Your task to perform on an android device: see tabs open on other devices in the chrome app Image 0: 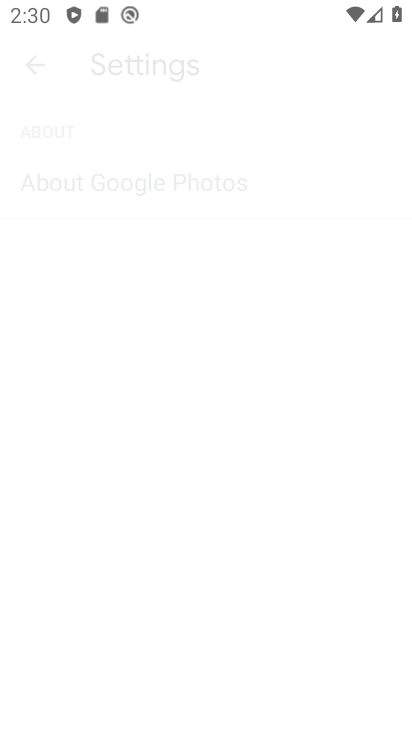
Step 0: drag from (274, 541) to (269, 331)
Your task to perform on an android device: see tabs open on other devices in the chrome app Image 1: 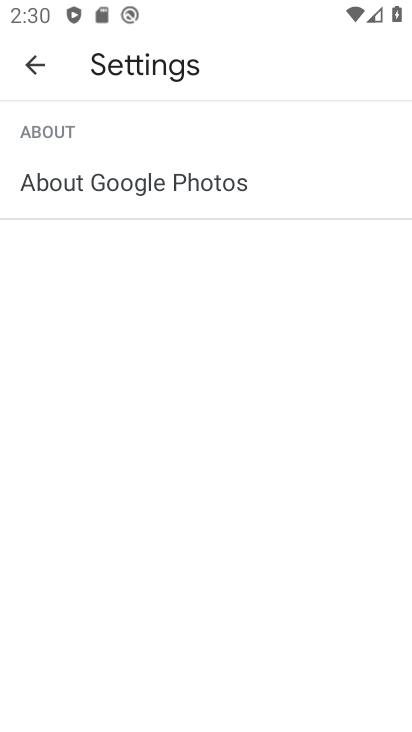
Step 1: press home button
Your task to perform on an android device: see tabs open on other devices in the chrome app Image 2: 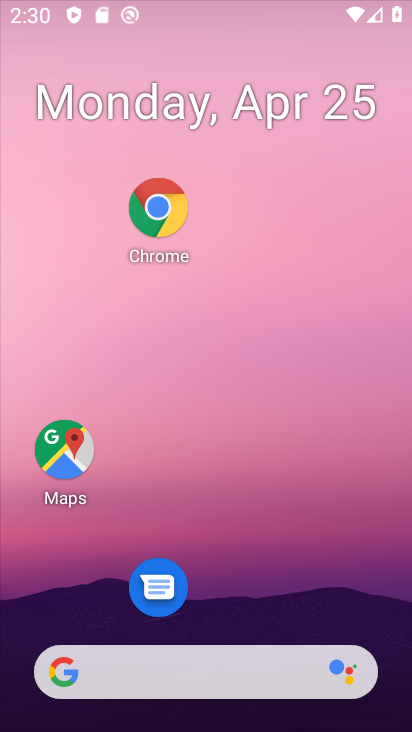
Step 2: drag from (345, 603) to (303, 218)
Your task to perform on an android device: see tabs open on other devices in the chrome app Image 3: 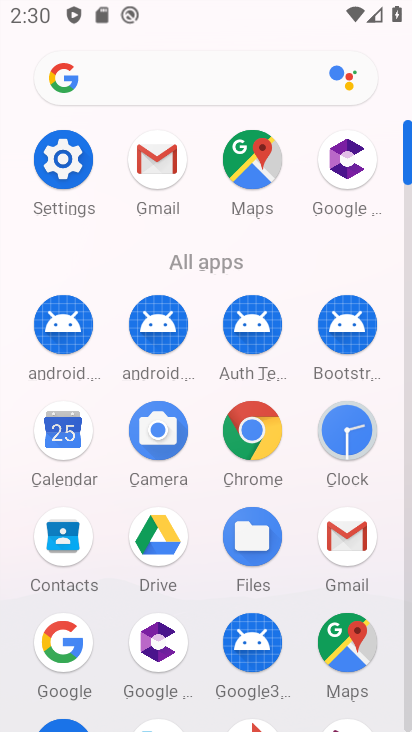
Step 3: click (75, 156)
Your task to perform on an android device: see tabs open on other devices in the chrome app Image 4: 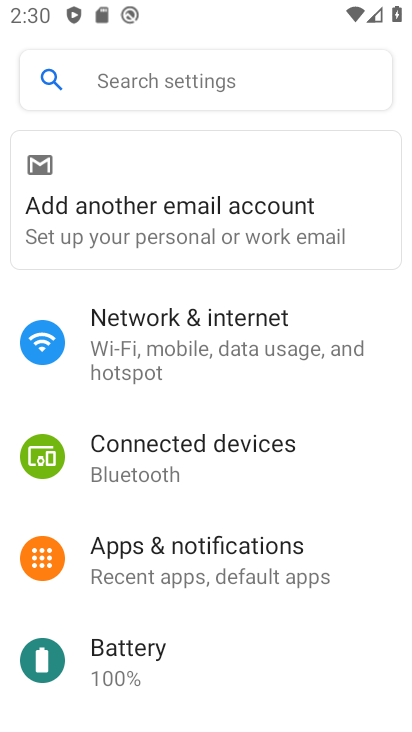
Step 4: drag from (203, 467) to (236, 4)
Your task to perform on an android device: see tabs open on other devices in the chrome app Image 5: 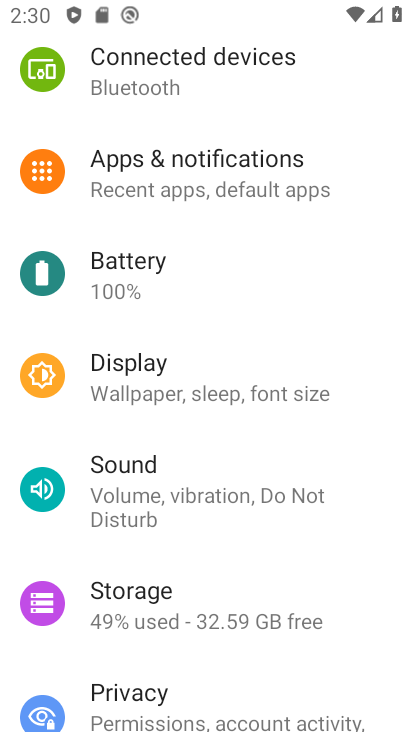
Step 5: click (209, 288)
Your task to perform on an android device: see tabs open on other devices in the chrome app Image 6: 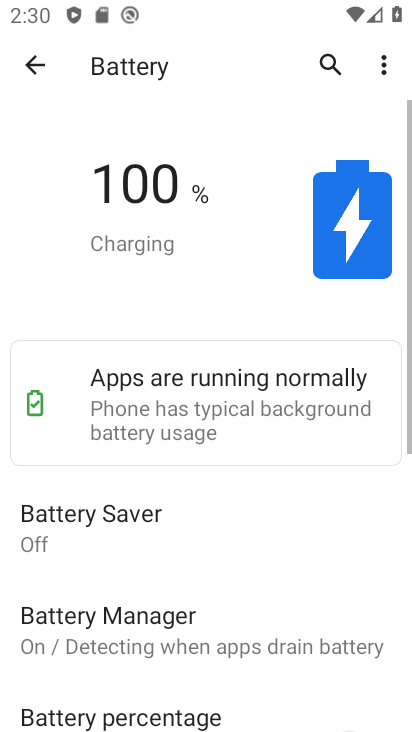
Step 6: press home button
Your task to perform on an android device: see tabs open on other devices in the chrome app Image 7: 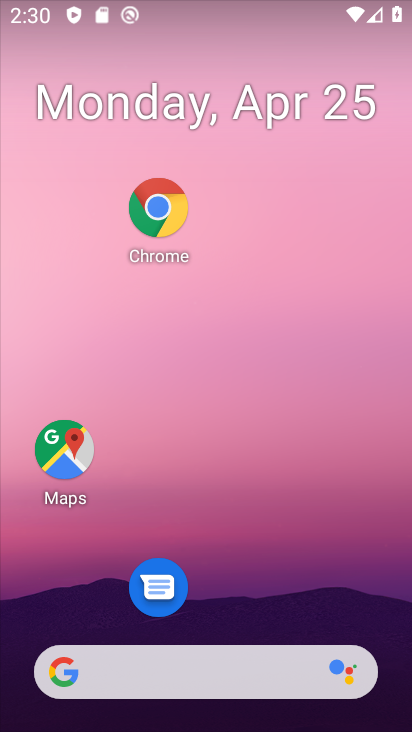
Step 7: click (152, 206)
Your task to perform on an android device: see tabs open on other devices in the chrome app Image 8: 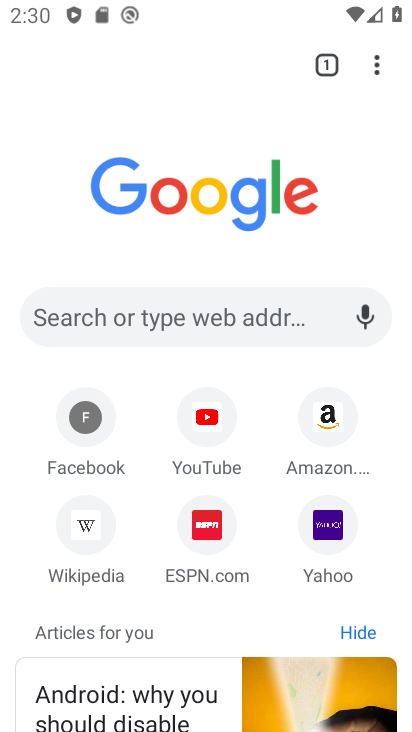
Step 8: task complete